Your task to perform on an android device: turn on priority inbox in the gmail app Image 0: 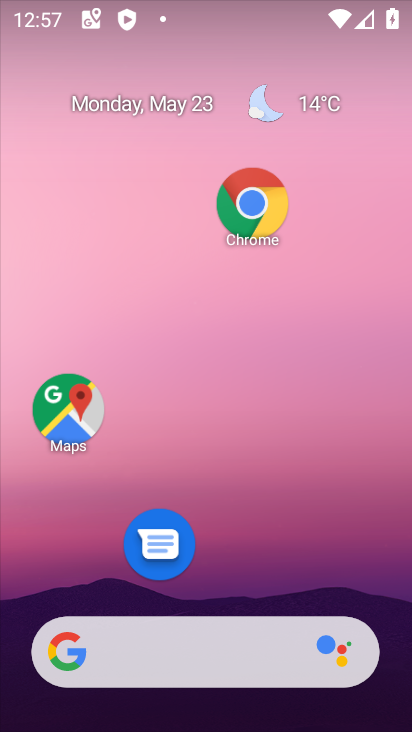
Step 0: drag from (262, 522) to (213, 112)
Your task to perform on an android device: turn on priority inbox in the gmail app Image 1: 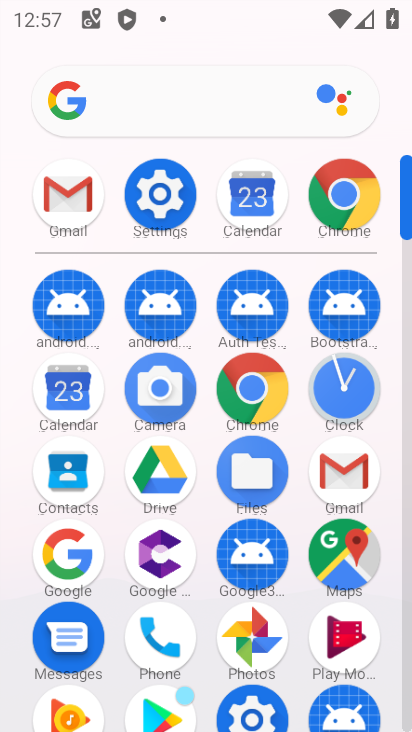
Step 1: click (73, 198)
Your task to perform on an android device: turn on priority inbox in the gmail app Image 2: 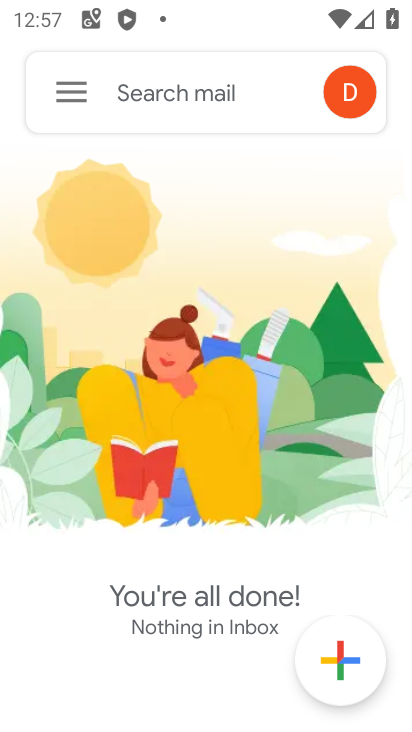
Step 2: click (74, 103)
Your task to perform on an android device: turn on priority inbox in the gmail app Image 3: 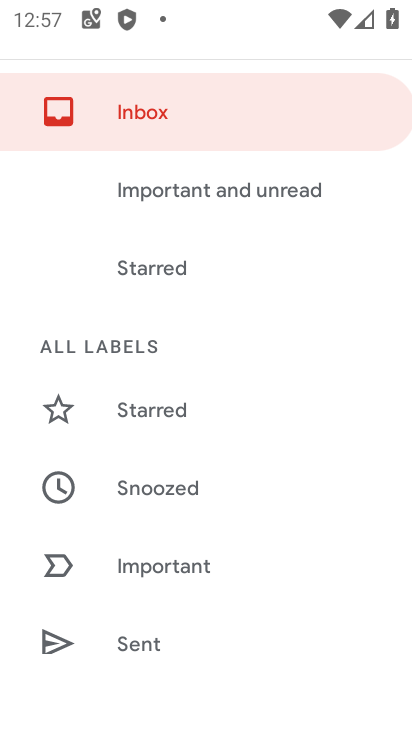
Step 3: drag from (211, 519) to (237, 55)
Your task to perform on an android device: turn on priority inbox in the gmail app Image 4: 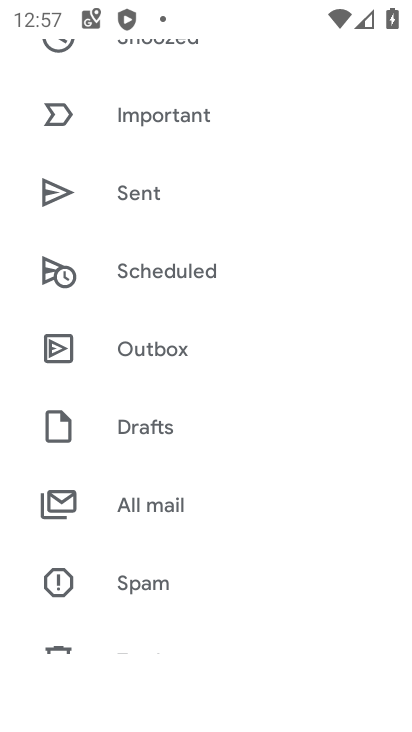
Step 4: drag from (144, 522) to (207, 186)
Your task to perform on an android device: turn on priority inbox in the gmail app Image 5: 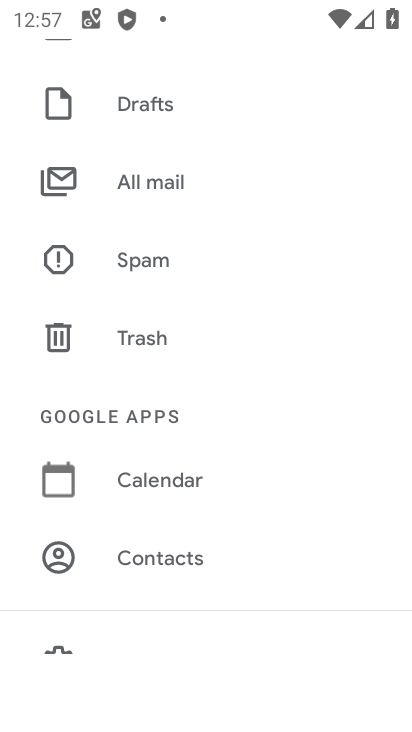
Step 5: drag from (202, 509) to (177, 125)
Your task to perform on an android device: turn on priority inbox in the gmail app Image 6: 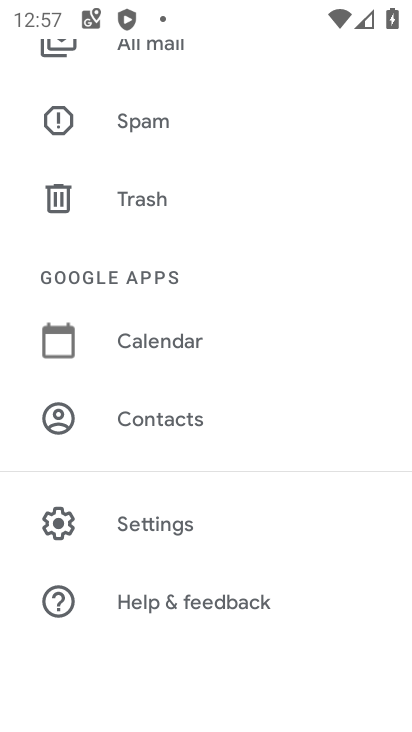
Step 6: click (167, 504)
Your task to perform on an android device: turn on priority inbox in the gmail app Image 7: 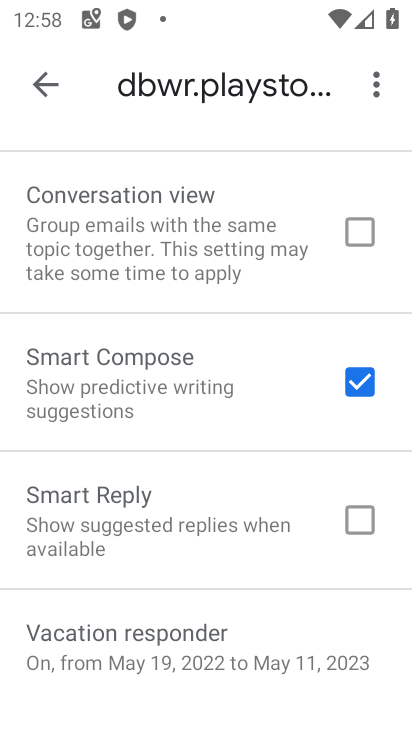
Step 7: drag from (163, 295) to (173, 639)
Your task to perform on an android device: turn on priority inbox in the gmail app Image 8: 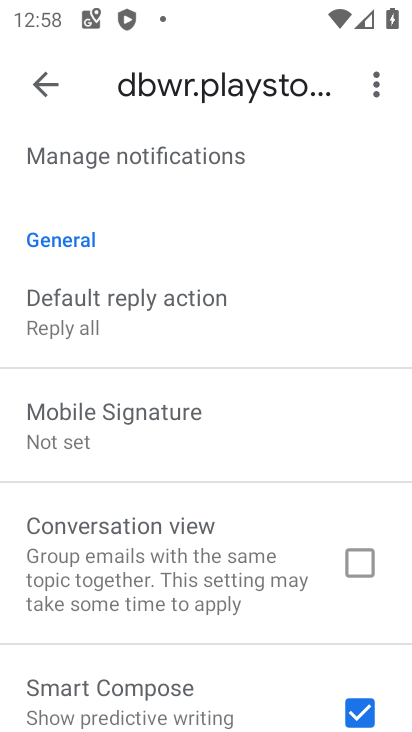
Step 8: drag from (108, 269) to (145, 638)
Your task to perform on an android device: turn on priority inbox in the gmail app Image 9: 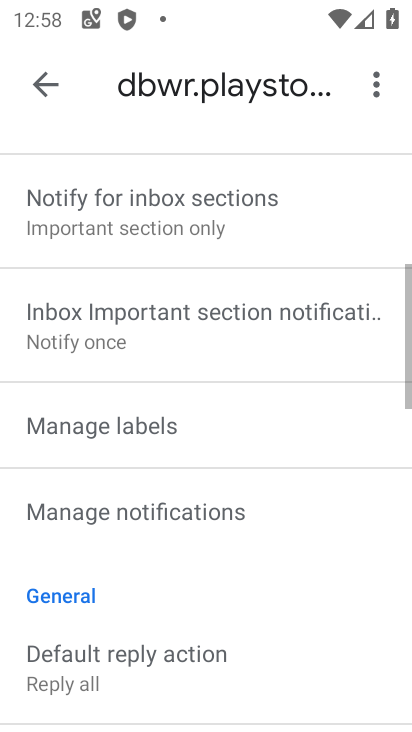
Step 9: drag from (152, 262) to (255, 718)
Your task to perform on an android device: turn on priority inbox in the gmail app Image 10: 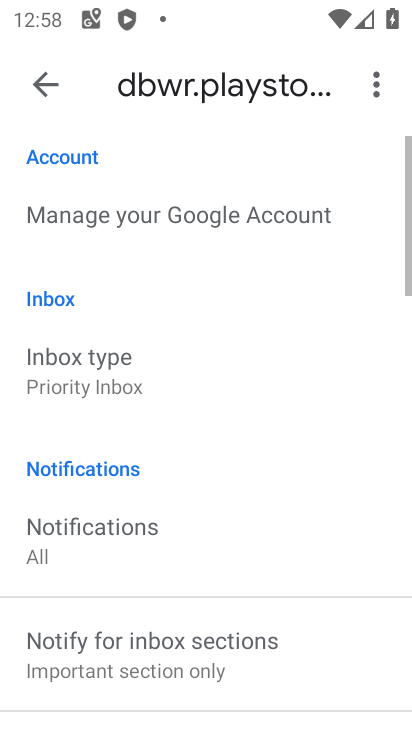
Step 10: click (114, 224)
Your task to perform on an android device: turn on priority inbox in the gmail app Image 11: 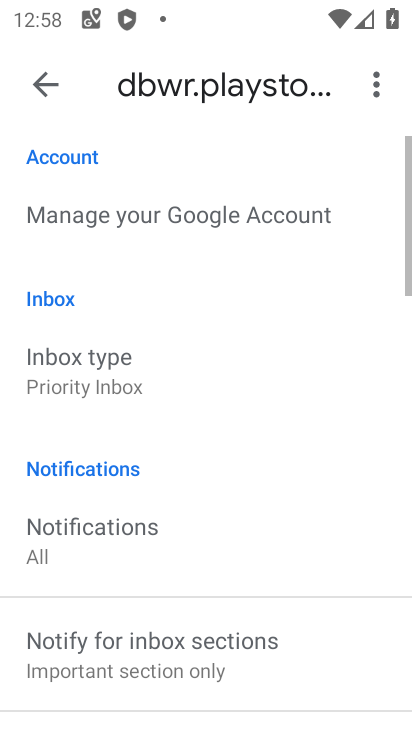
Step 11: task complete